Your task to perform on an android device: Open Maps and search for coffee Image 0: 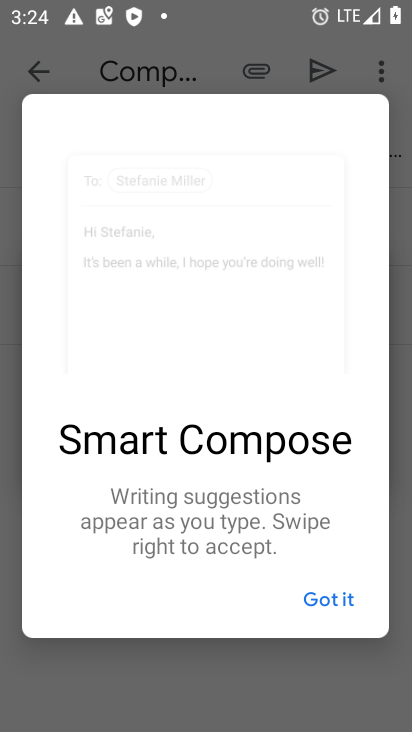
Step 0: press home button
Your task to perform on an android device: Open Maps and search for coffee Image 1: 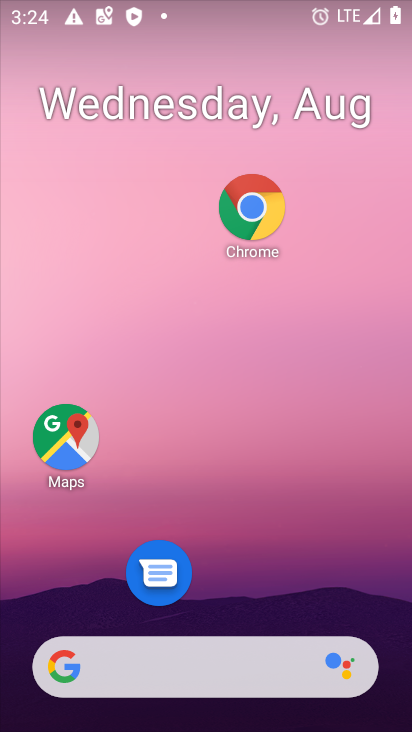
Step 1: drag from (245, 618) to (266, 128)
Your task to perform on an android device: Open Maps and search for coffee Image 2: 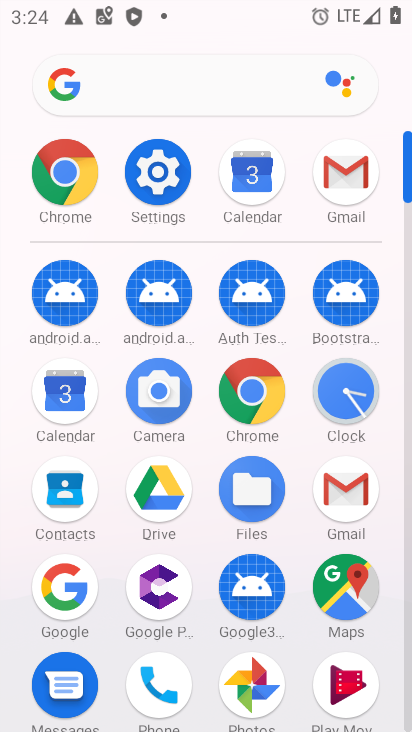
Step 2: click (352, 595)
Your task to perform on an android device: Open Maps and search for coffee Image 3: 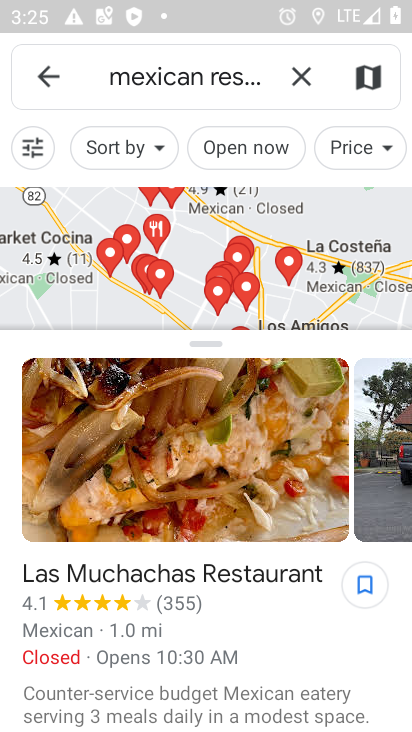
Step 3: click (298, 76)
Your task to perform on an android device: Open Maps and search for coffee Image 4: 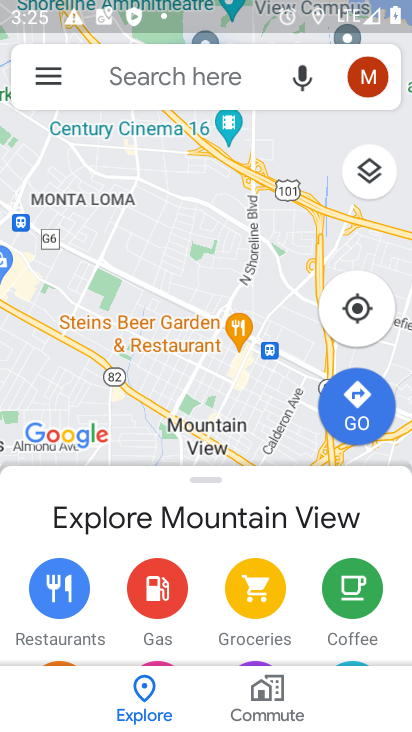
Step 4: click (190, 75)
Your task to perform on an android device: Open Maps and search for coffee Image 5: 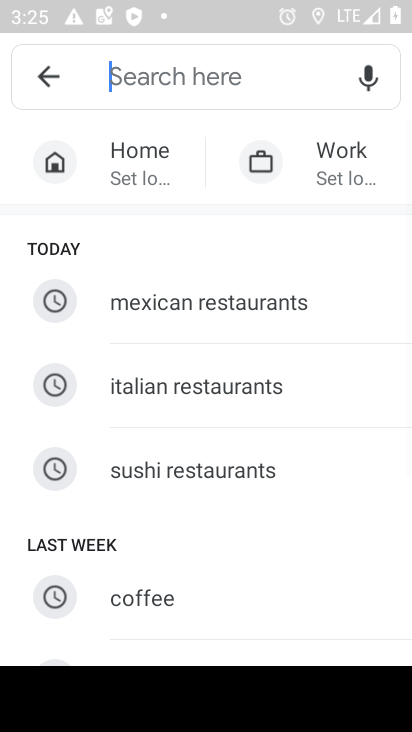
Step 5: click (174, 603)
Your task to perform on an android device: Open Maps and search for coffee Image 6: 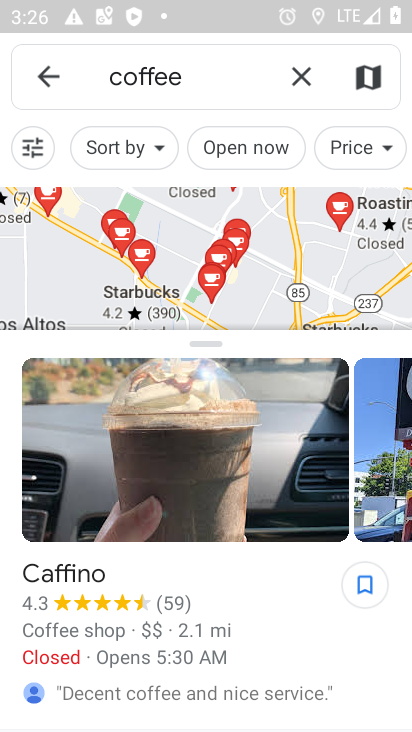
Step 6: task complete